Your task to perform on an android device: search for starred emails in the gmail app Image 0: 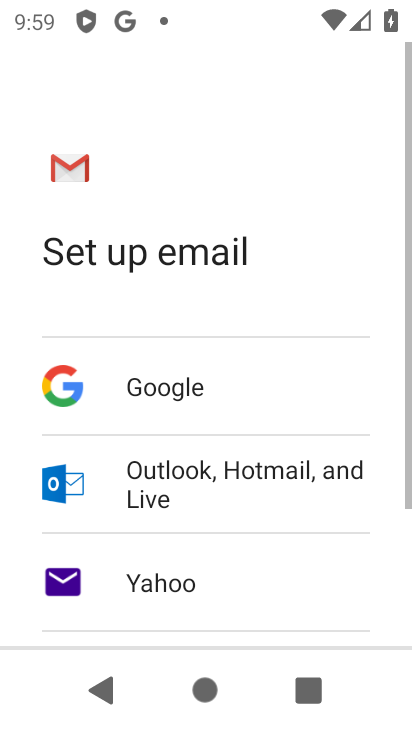
Step 0: press back button
Your task to perform on an android device: search for starred emails in the gmail app Image 1: 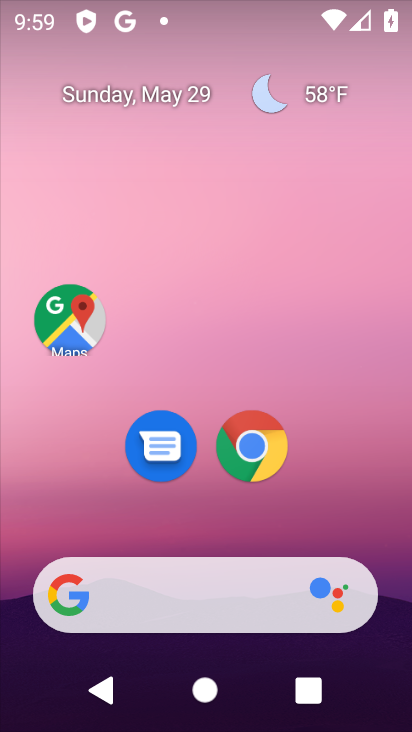
Step 1: drag from (335, 519) to (293, 11)
Your task to perform on an android device: search for starred emails in the gmail app Image 2: 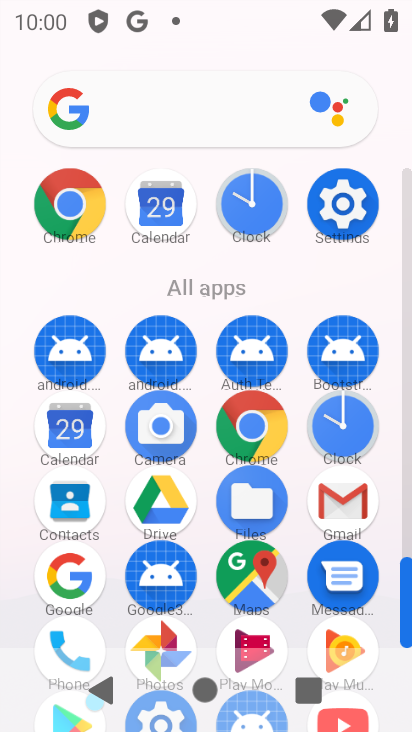
Step 2: click (340, 495)
Your task to perform on an android device: search for starred emails in the gmail app Image 3: 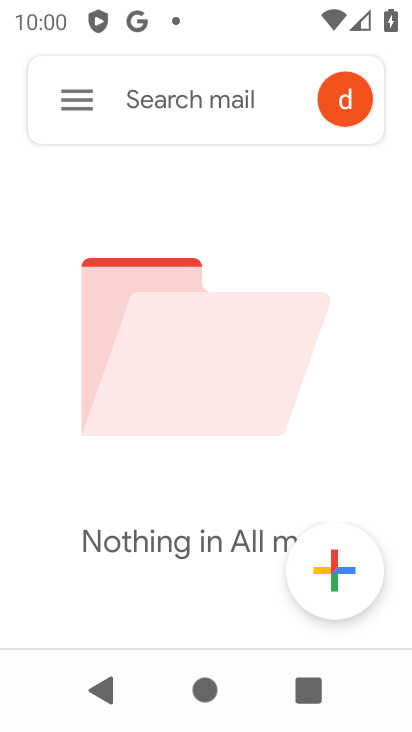
Step 3: click (73, 81)
Your task to perform on an android device: search for starred emails in the gmail app Image 4: 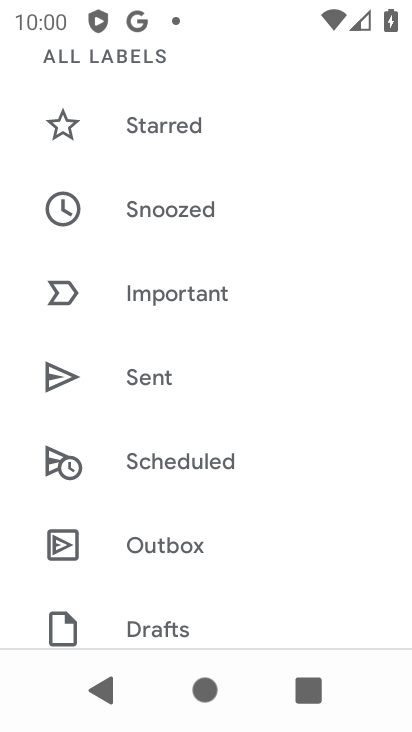
Step 4: drag from (305, 210) to (292, 544)
Your task to perform on an android device: search for starred emails in the gmail app Image 5: 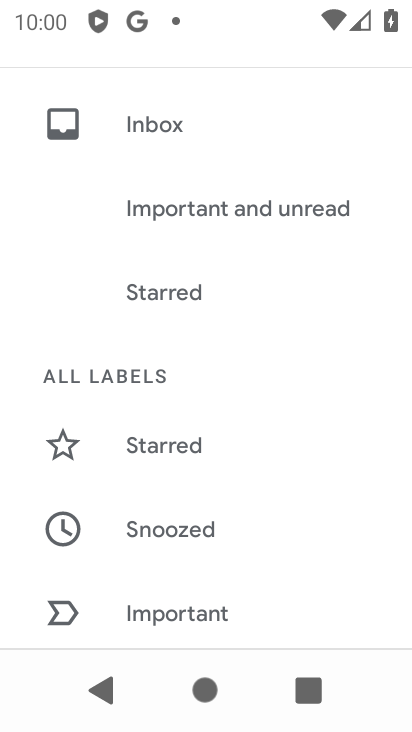
Step 5: click (203, 433)
Your task to perform on an android device: search for starred emails in the gmail app Image 6: 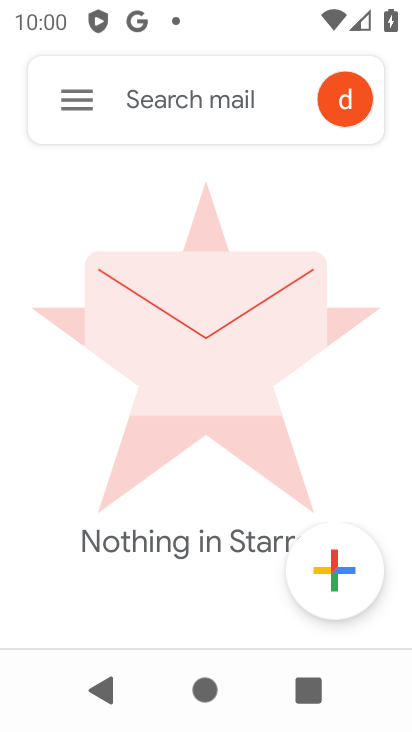
Step 6: task complete